Your task to perform on an android device: Go to sound settings Image 0: 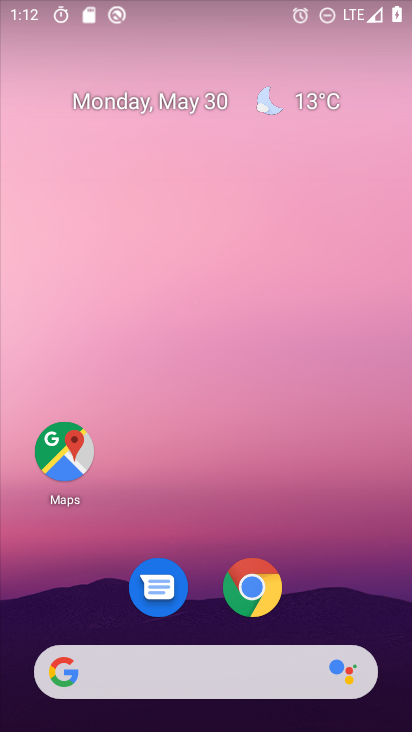
Step 0: drag from (360, 482) to (302, 23)
Your task to perform on an android device: Go to sound settings Image 1: 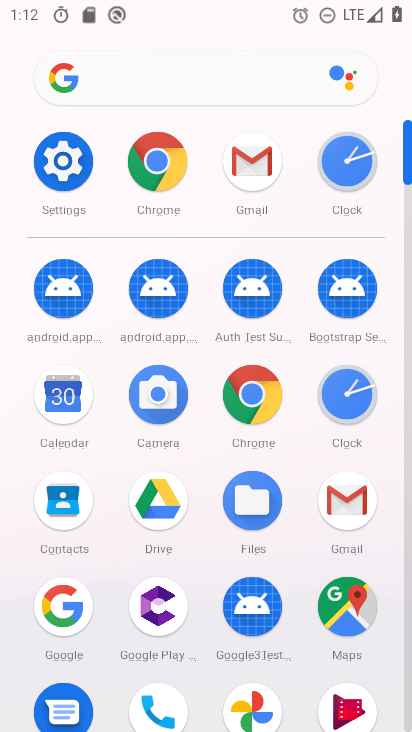
Step 1: click (69, 150)
Your task to perform on an android device: Go to sound settings Image 2: 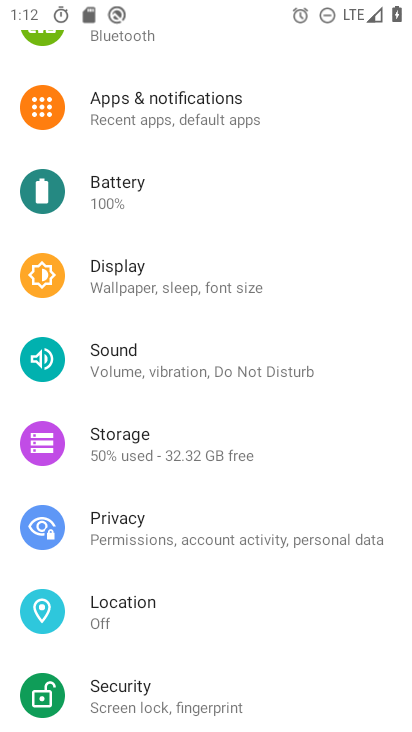
Step 2: click (131, 367)
Your task to perform on an android device: Go to sound settings Image 3: 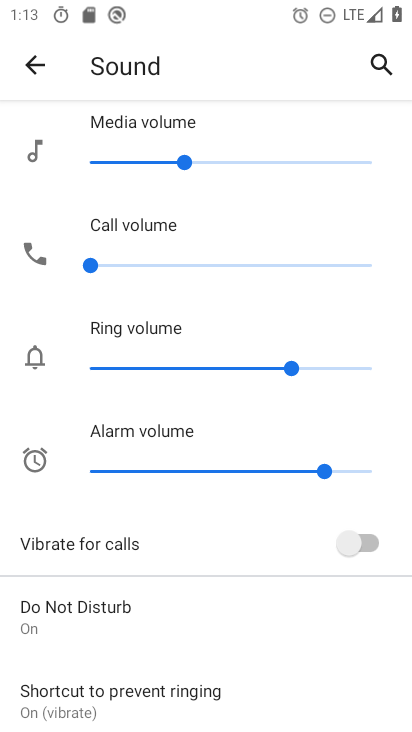
Step 3: task complete